Your task to perform on an android device: turn off wifi Image 0: 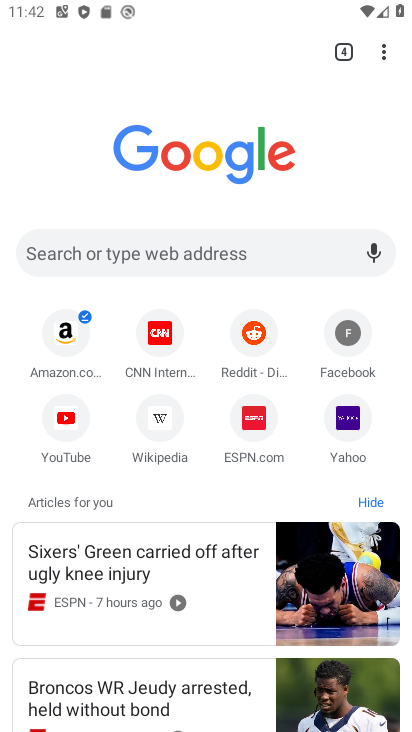
Step 0: press home button
Your task to perform on an android device: turn off wifi Image 1: 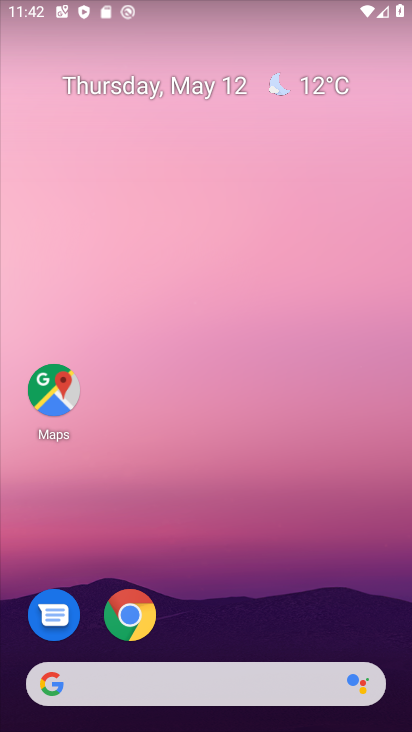
Step 1: drag from (224, 596) to (215, 133)
Your task to perform on an android device: turn off wifi Image 2: 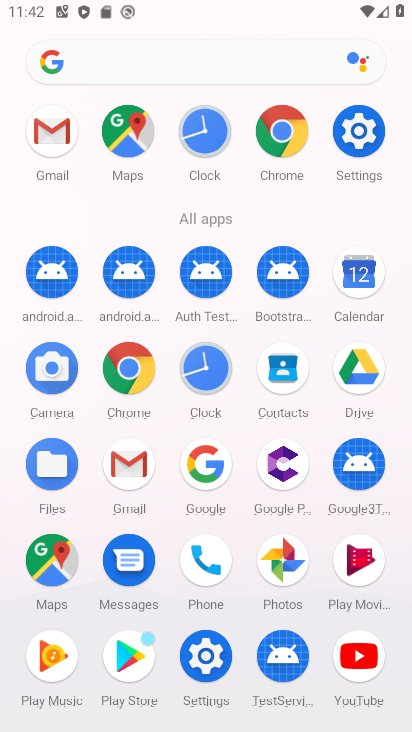
Step 2: click (366, 151)
Your task to perform on an android device: turn off wifi Image 3: 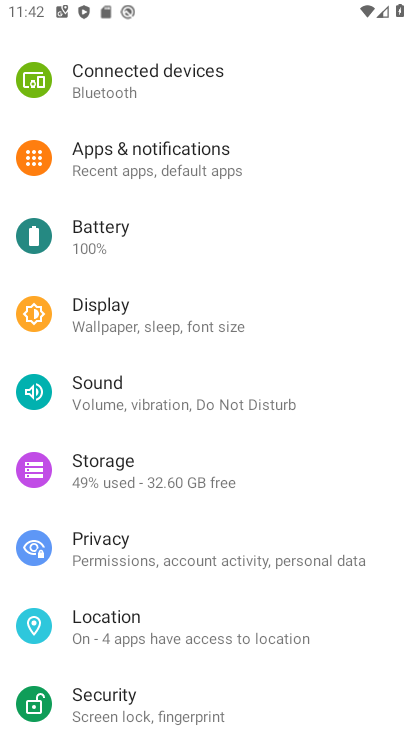
Step 3: drag from (213, 182) to (224, 571)
Your task to perform on an android device: turn off wifi Image 4: 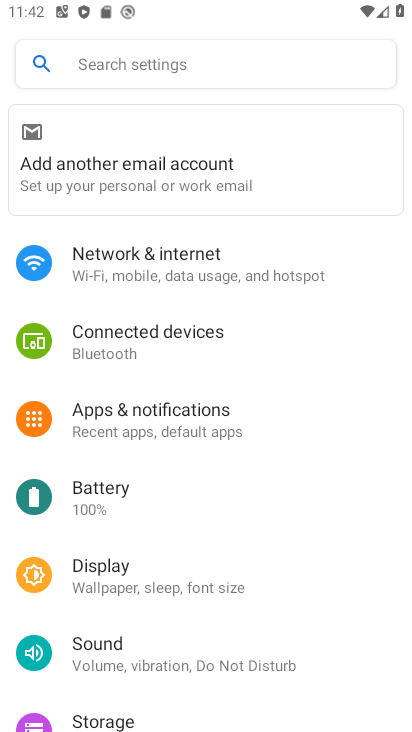
Step 4: click (176, 259)
Your task to perform on an android device: turn off wifi Image 5: 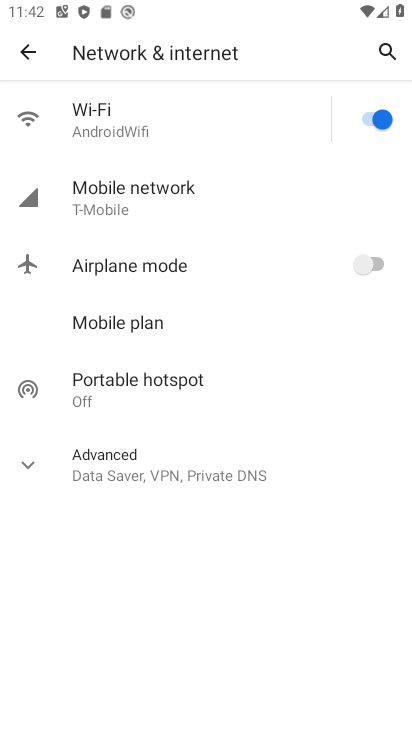
Step 5: click (368, 113)
Your task to perform on an android device: turn off wifi Image 6: 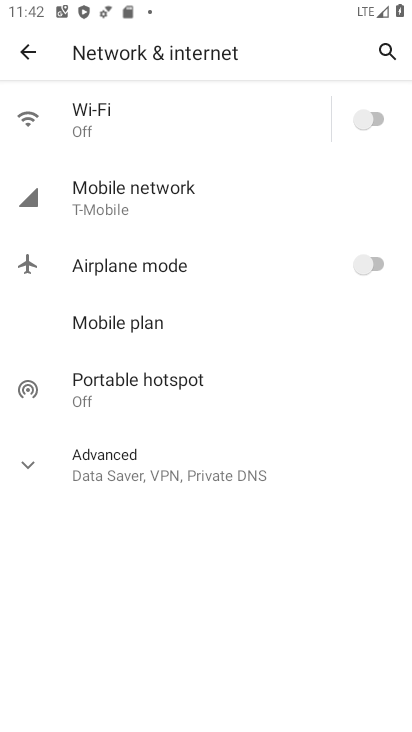
Step 6: task complete